Your task to perform on an android device: create a new album in the google photos Image 0: 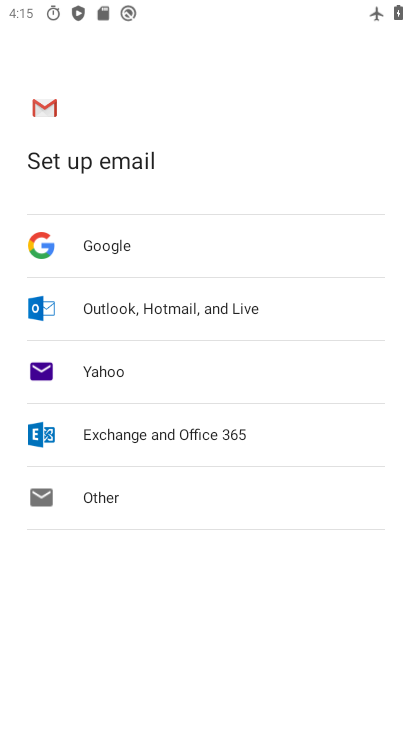
Step 0: press home button
Your task to perform on an android device: create a new album in the google photos Image 1: 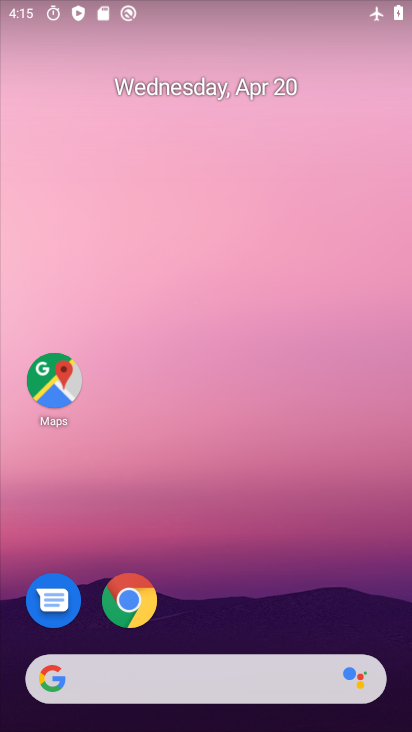
Step 1: drag from (246, 535) to (184, 37)
Your task to perform on an android device: create a new album in the google photos Image 2: 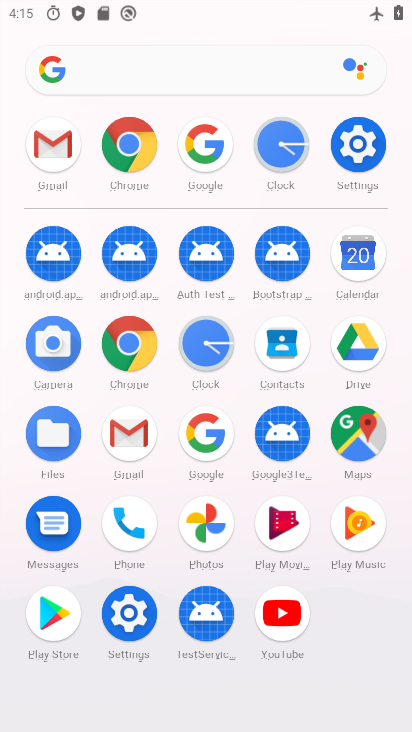
Step 2: click (213, 520)
Your task to perform on an android device: create a new album in the google photos Image 3: 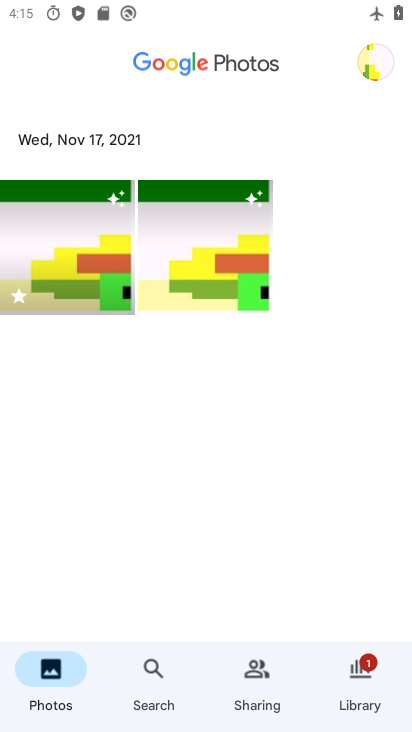
Step 3: click (356, 676)
Your task to perform on an android device: create a new album in the google photos Image 4: 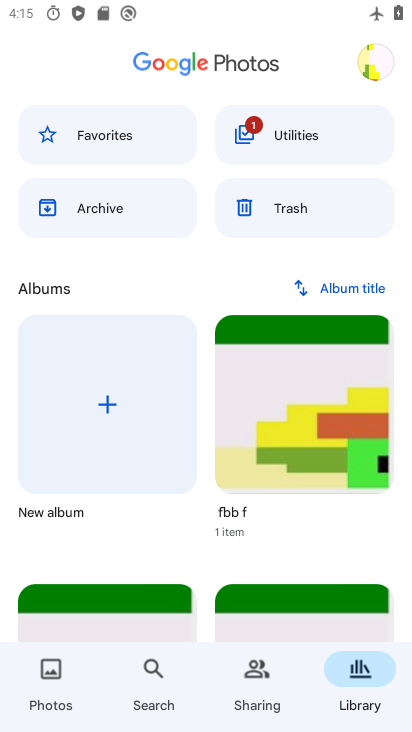
Step 4: click (94, 400)
Your task to perform on an android device: create a new album in the google photos Image 5: 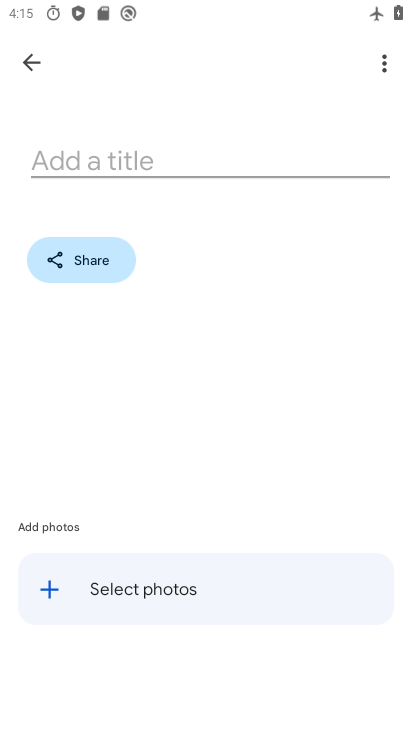
Step 5: click (133, 167)
Your task to perform on an android device: create a new album in the google photos Image 6: 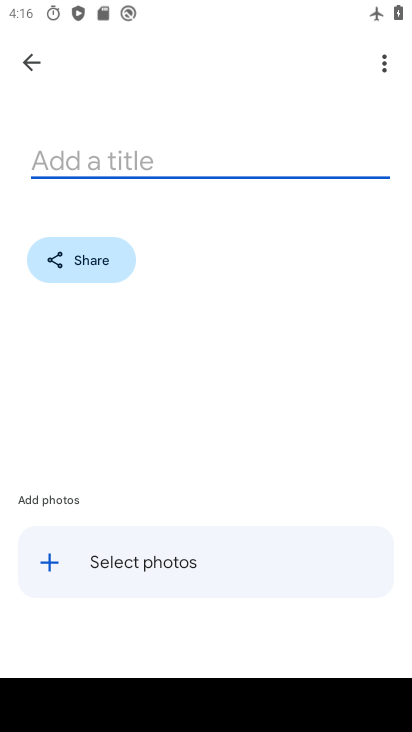
Step 6: type "njkjhg"
Your task to perform on an android device: create a new album in the google photos Image 7: 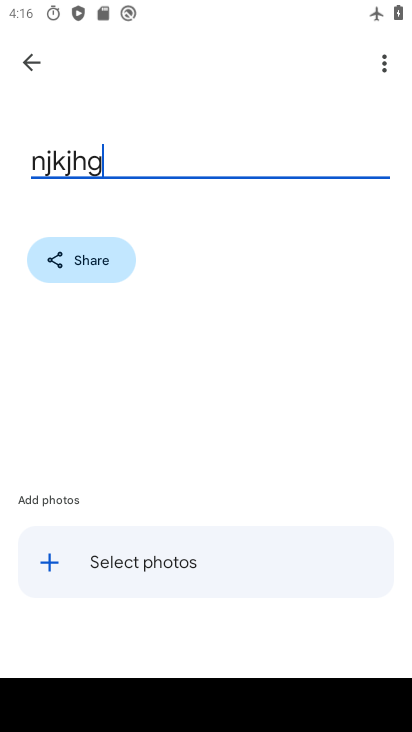
Step 7: click (144, 556)
Your task to perform on an android device: create a new album in the google photos Image 8: 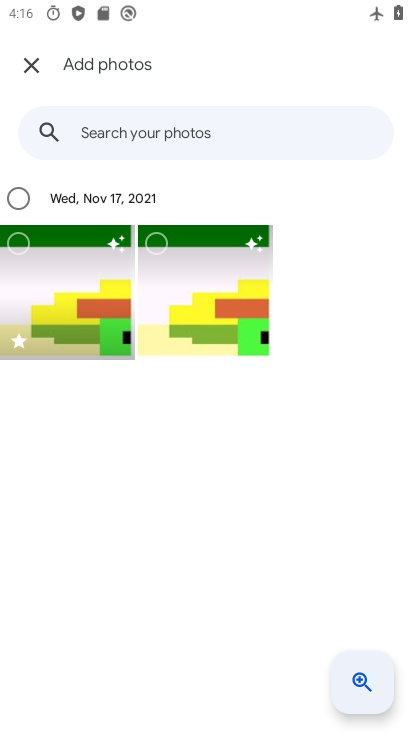
Step 8: click (45, 290)
Your task to perform on an android device: create a new album in the google photos Image 9: 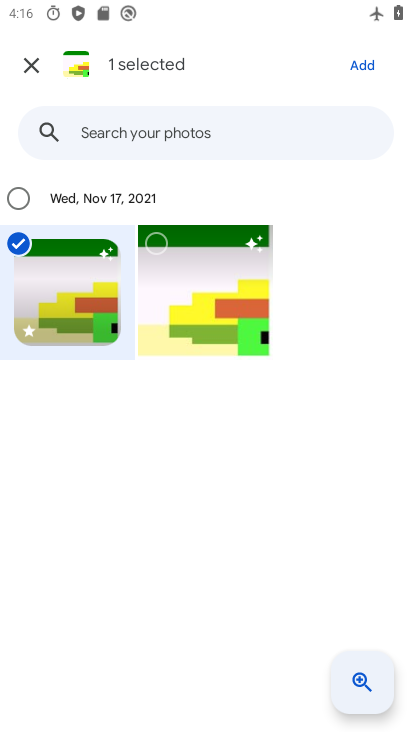
Step 9: click (351, 65)
Your task to perform on an android device: create a new album in the google photos Image 10: 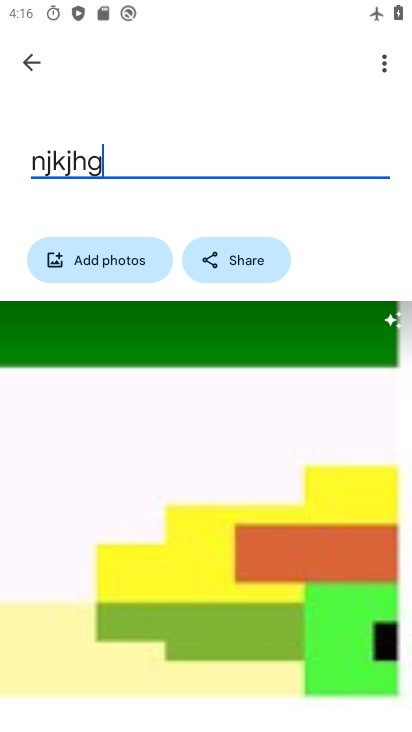
Step 10: press enter
Your task to perform on an android device: create a new album in the google photos Image 11: 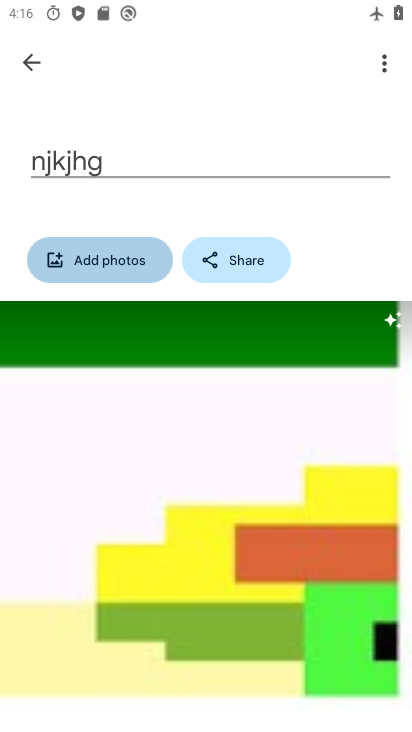
Step 11: press enter
Your task to perform on an android device: create a new album in the google photos Image 12: 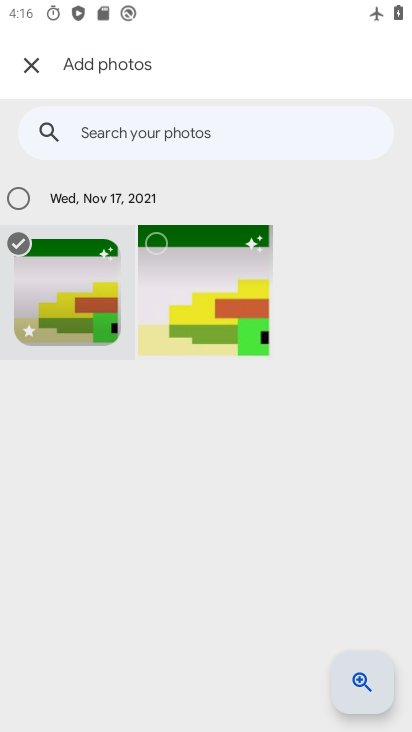
Step 12: press enter
Your task to perform on an android device: create a new album in the google photos Image 13: 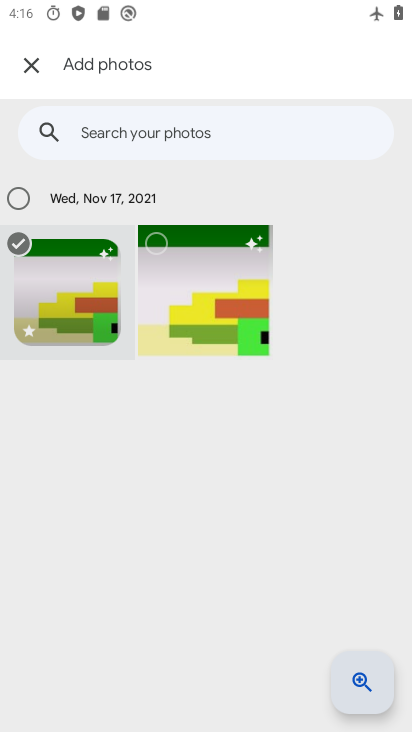
Step 13: press enter
Your task to perform on an android device: create a new album in the google photos Image 14: 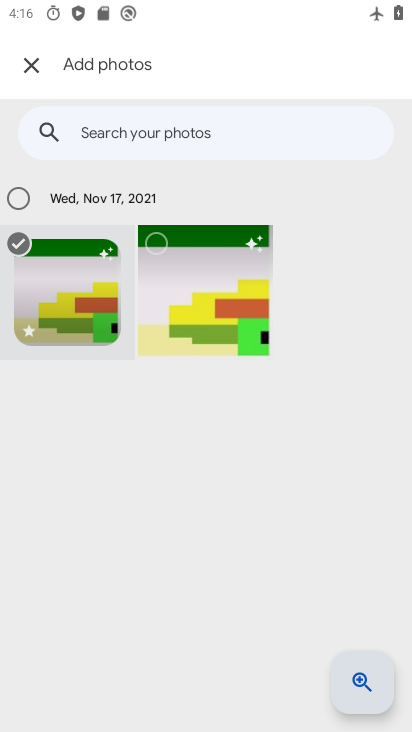
Step 14: press enter
Your task to perform on an android device: create a new album in the google photos Image 15: 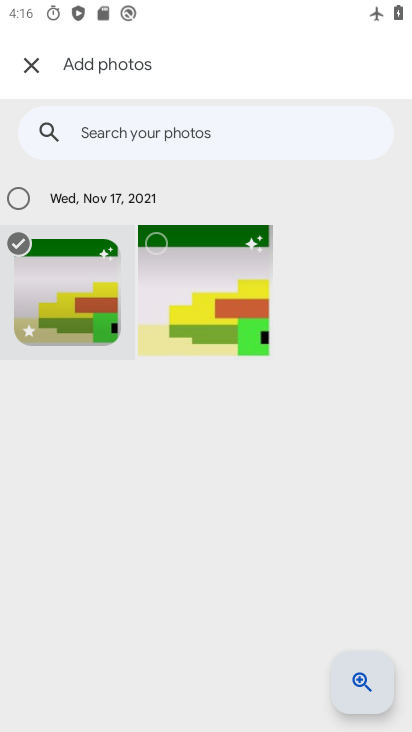
Step 15: press enter
Your task to perform on an android device: create a new album in the google photos Image 16: 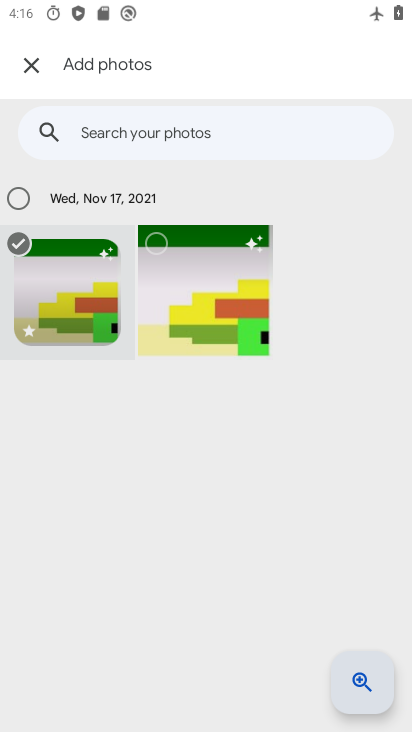
Step 16: click (141, 494)
Your task to perform on an android device: create a new album in the google photos Image 17: 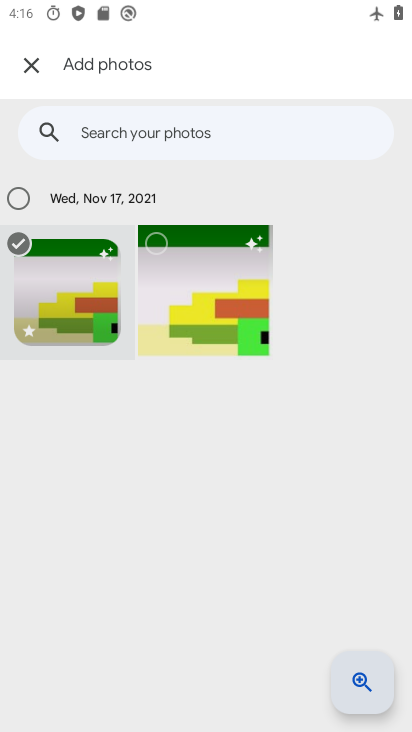
Step 17: click (26, 74)
Your task to perform on an android device: create a new album in the google photos Image 18: 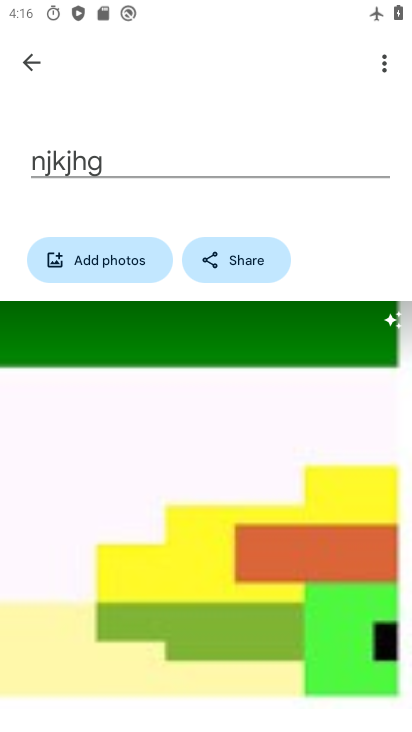
Step 18: click (390, 62)
Your task to perform on an android device: create a new album in the google photos Image 19: 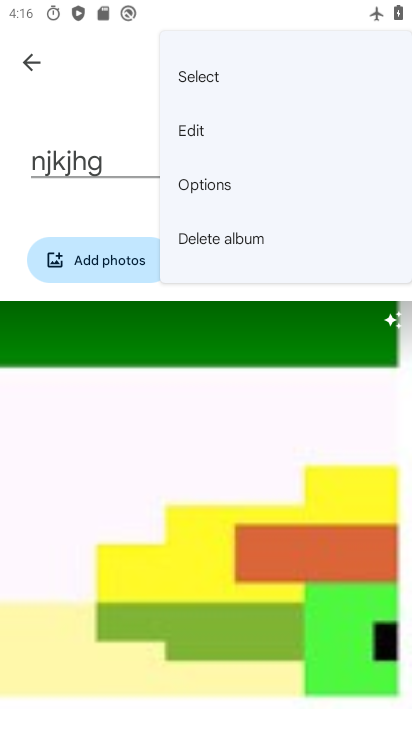
Step 19: click (35, 65)
Your task to perform on an android device: create a new album in the google photos Image 20: 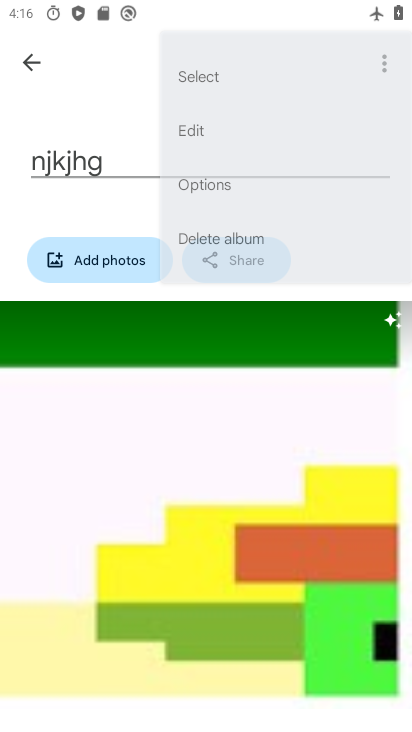
Step 20: click (35, 64)
Your task to perform on an android device: create a new album in the google photos Image 21: 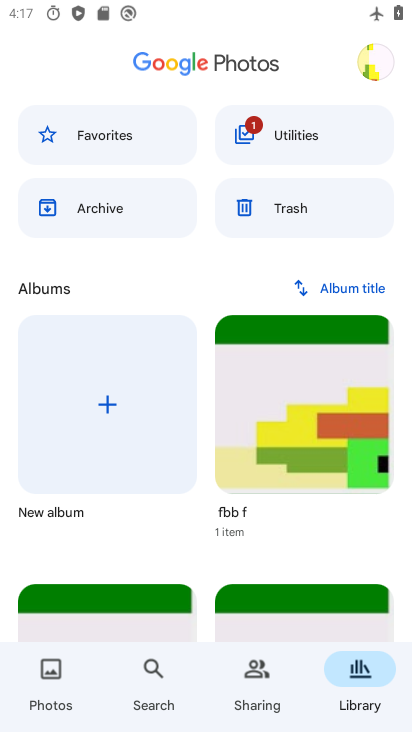
Step 21: task complete